Your task to perform on an android device: Open Google Image 0: 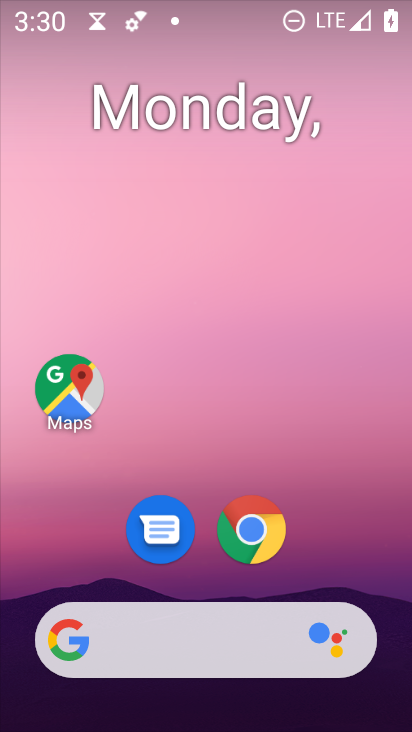
Step 0: click (198, 627)
Your task to perform on an android device: Open Google Image 1: 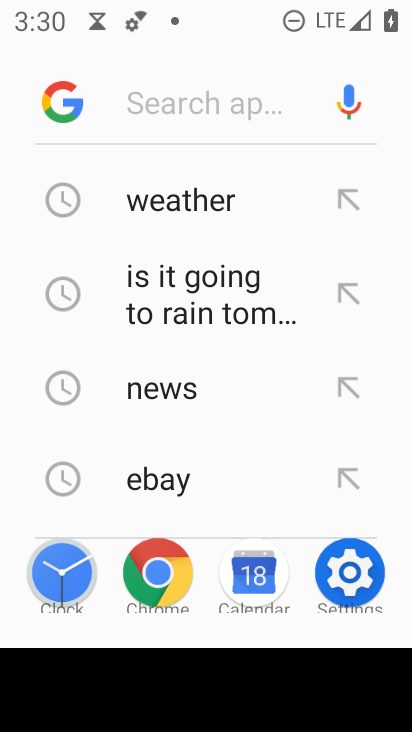
Step 1: click (56, 97)
Your task to perform on an android device: Open Google Image 2: 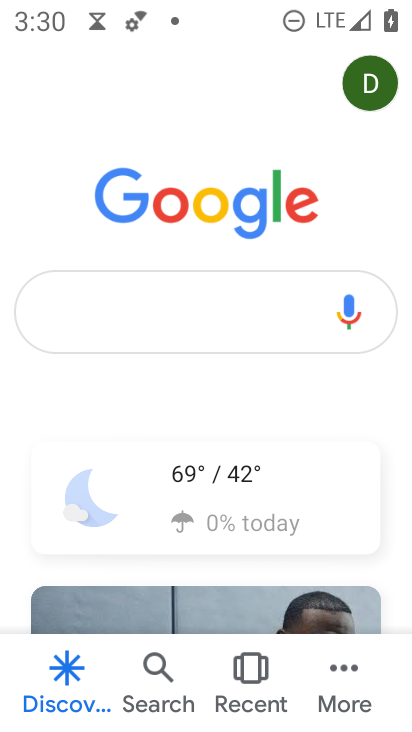
Step 2: task complete